Your task to perform on an android device: turn on priority inbox in the gmail app Image 0: 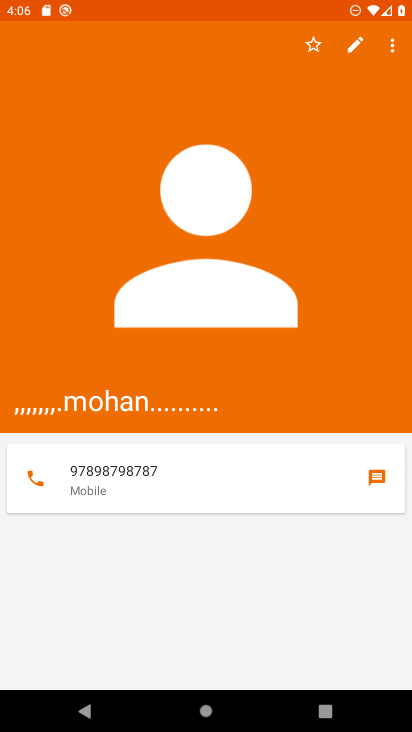
Step 0: press home button
Your task to perform on an android device: turn on priority inbox in the gmail app Image 1: 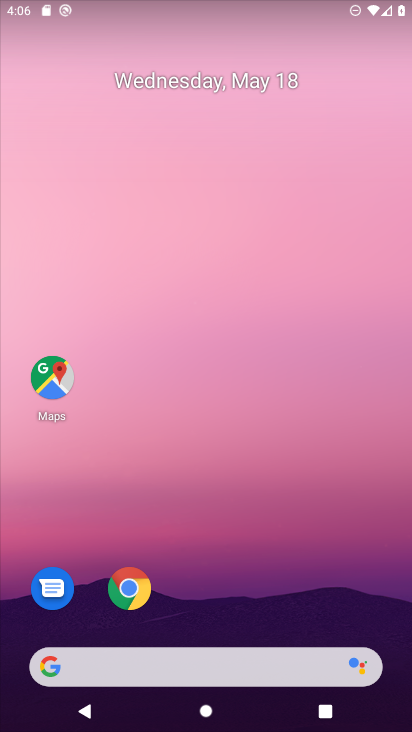
Step 1: drag from (281, 564) to (233, 114)
Your task to perform on an android device: turn on priority inbox in the gmail app Image 2: 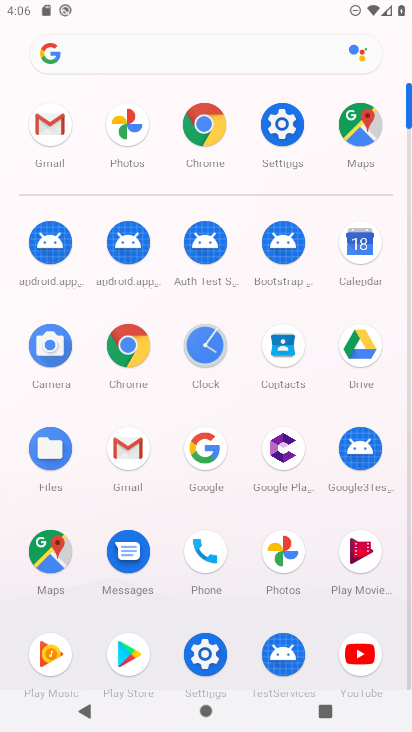
Step 2: click (64, 150)
Your task to perform on an android device: turn on priority inbox in the gmail app Image 3: 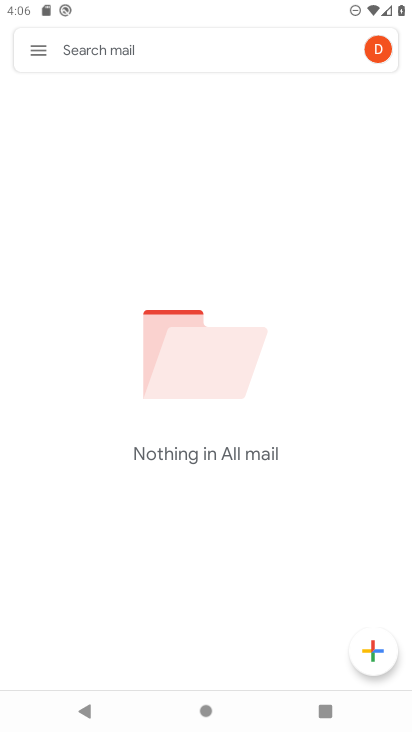
Step 3: click (27, 50)
Your task to perform on an android device: turn on priority inbox in the gmail app Image 4: 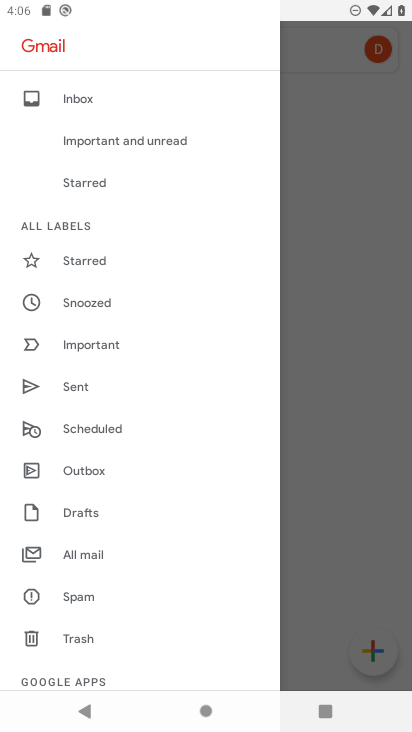
Step 4: drag from (93, 656) to (121, 179)
Your task to perform on an android device: turn on priority inbox in the gmail app Image 5: 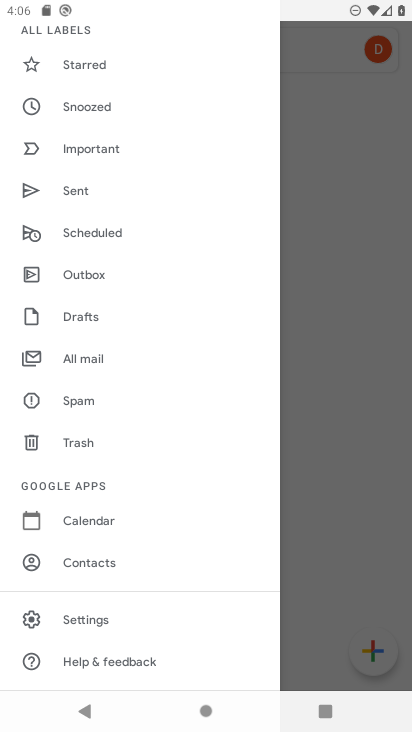
Step 5: click (112, 618)
Your task to perform on an android device: turn on priority inbox in the gmail app Image 6: 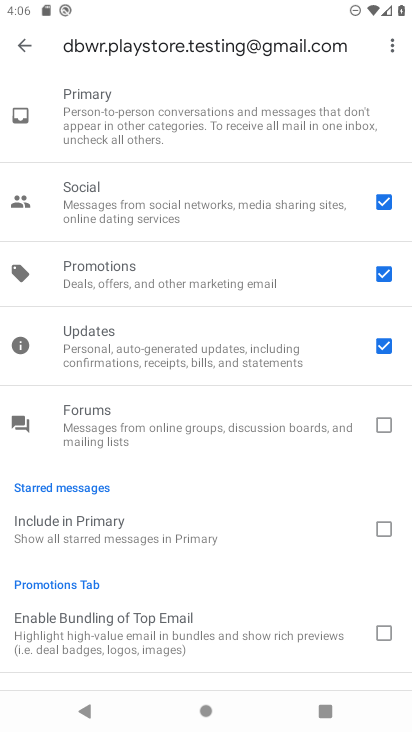
Step 6: click (29, 54)
Your task to perform on an android device: turn on priority inbox in the gmail app Image 7: 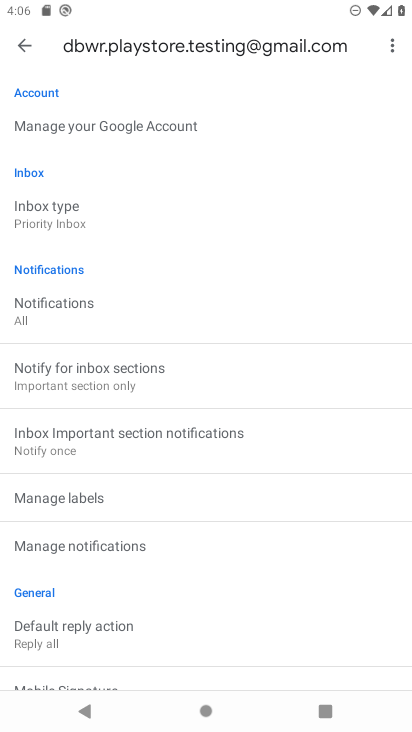
Step 7: task complete